Your task to perform on an android device: check out phone information Image 0: 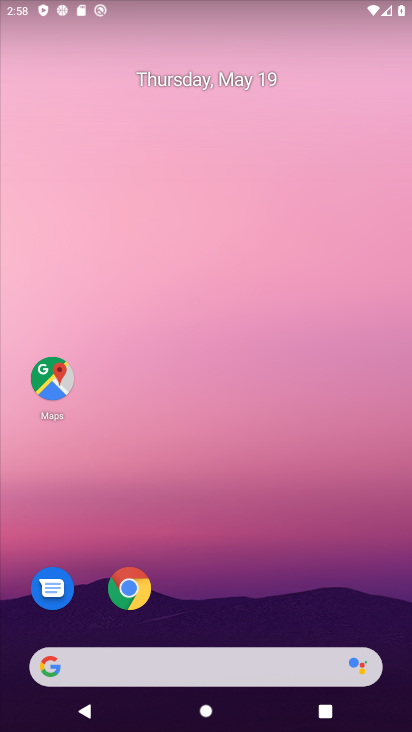
Step 0: drag from (146, 612) to (254, 186)
Your task to perform on an android device: check out phone information Image 1: 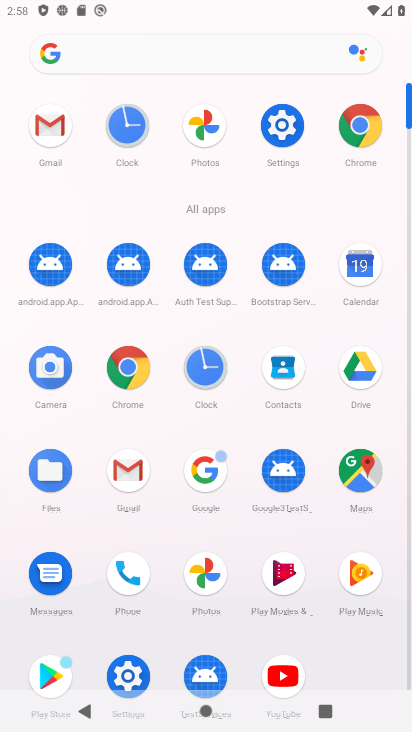
Step 1: click (285, 131)
Your task to perform on an android device: check out phone information Image 2: 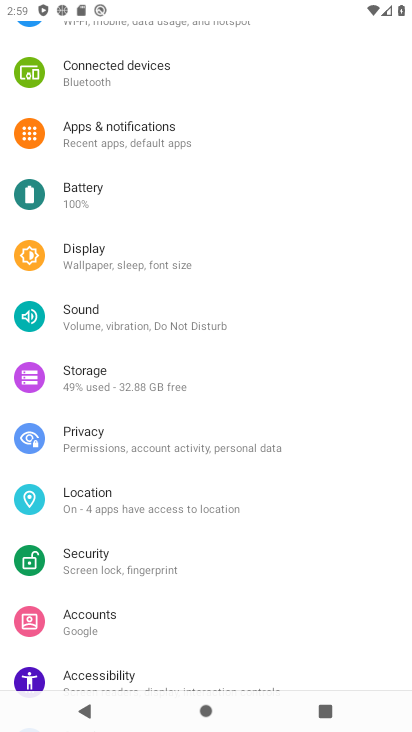
Step 2: task complete